Your task to perform on an android device: uninstall "Truecaller" Image 0: 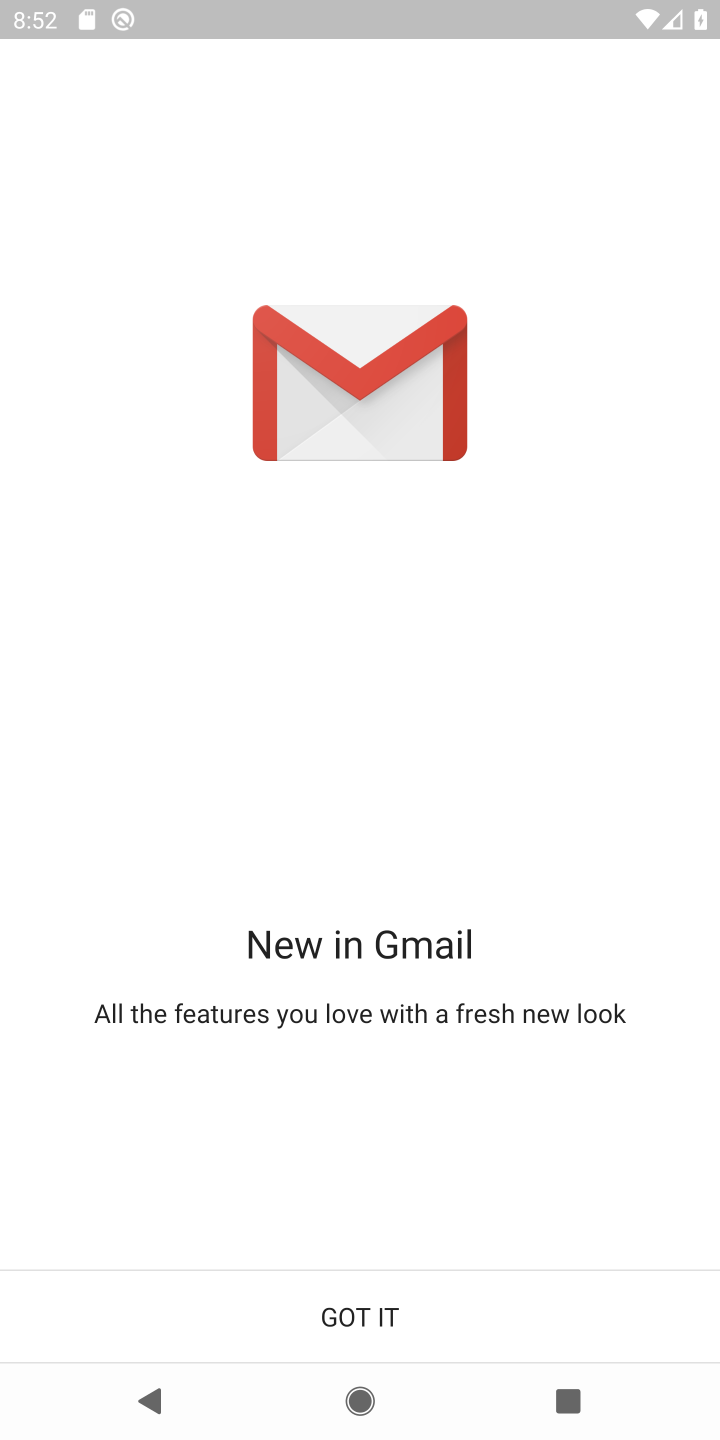
Step 0: press home button
Your task to perform on an android device: uninstall "Truecaller" Image 1: 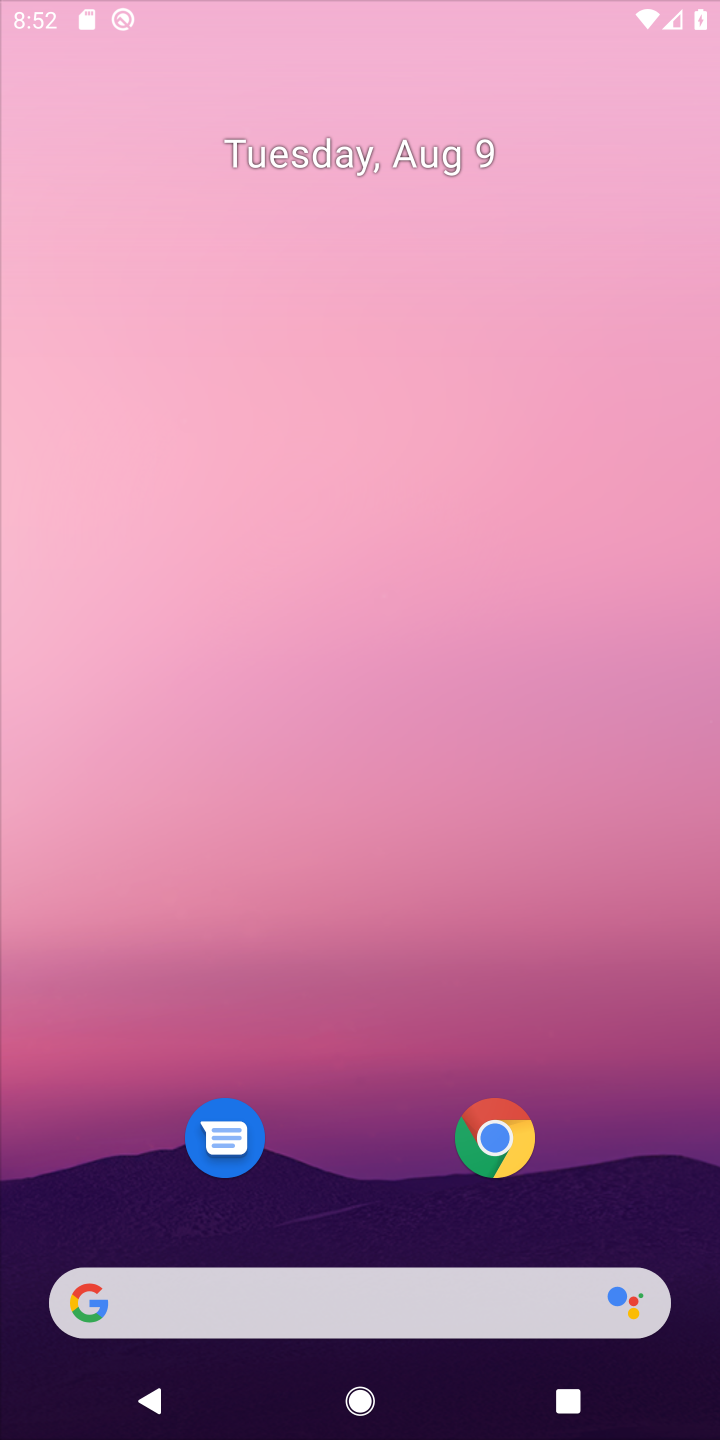
Step 1: drag from (384, 1065) to (315, 321)
Your task to perform on an android device: uninstall "Truecaller" Image 2: 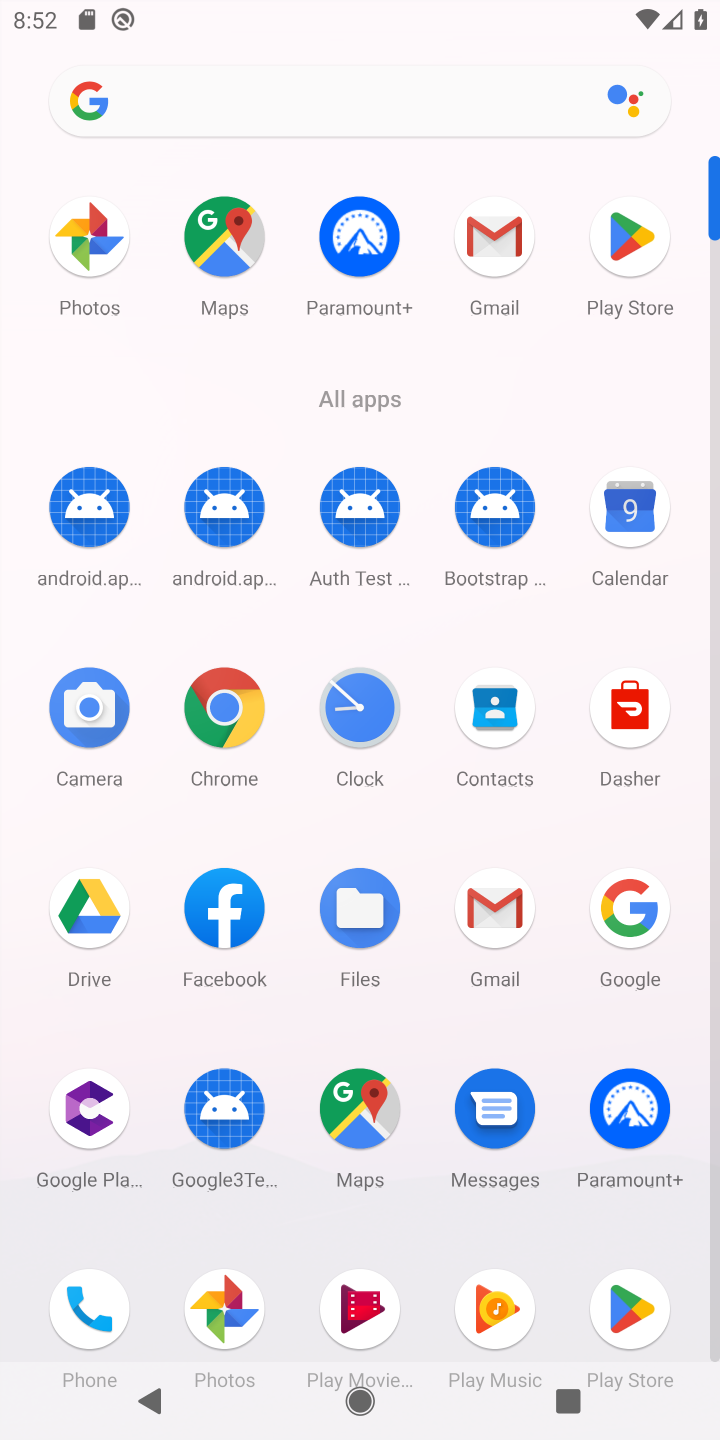
Step 2: click (598, 237)
Your task to perform on an android device: uninstall "Truecaller" Image 3: 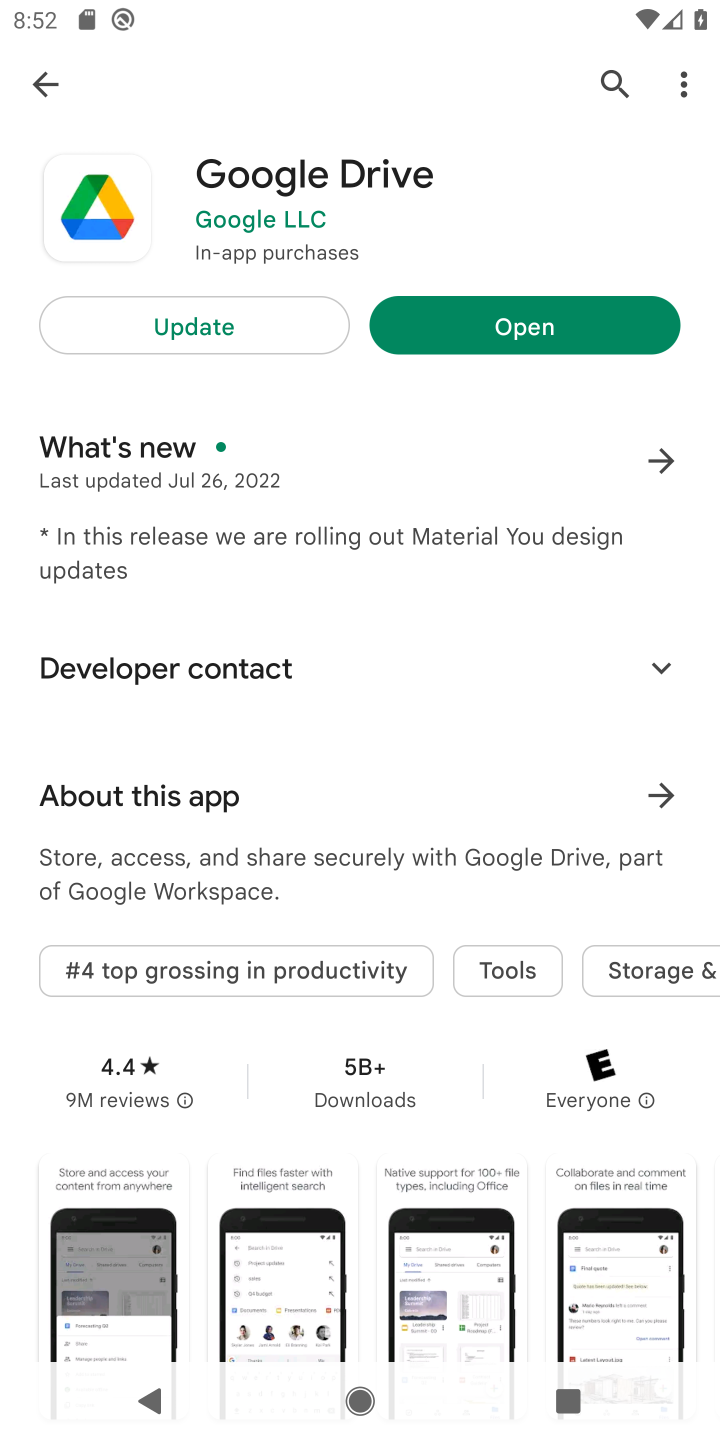
Step 3: click (602, 68)
Your task to perform on an android device: uninstall "Truecaller" Image 4: 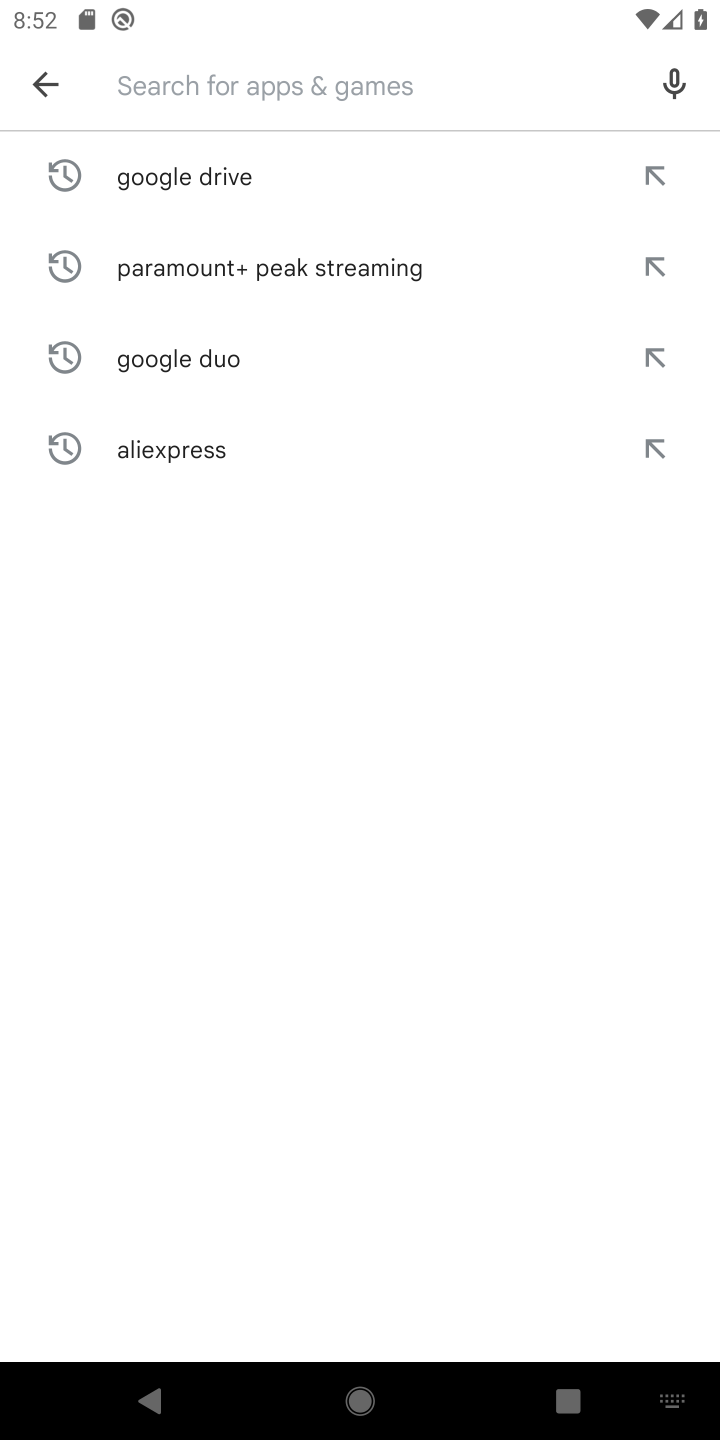
Step 4: type "Truecaller"
Your task to perform on an android device: uninstall "Truecaller" Image 5: 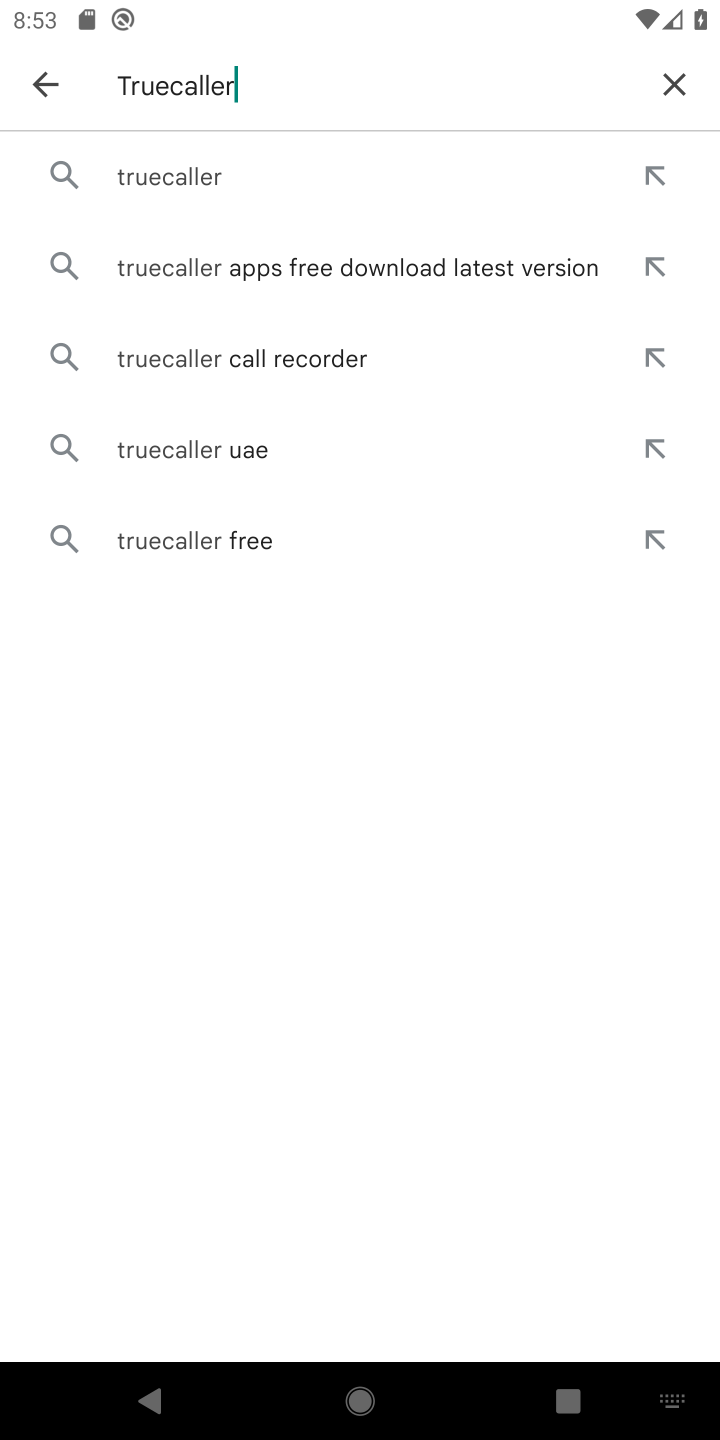
Step 5: click (180, 179)
Your task to perform on an android device: uninstall "Truecaller" Image 6: 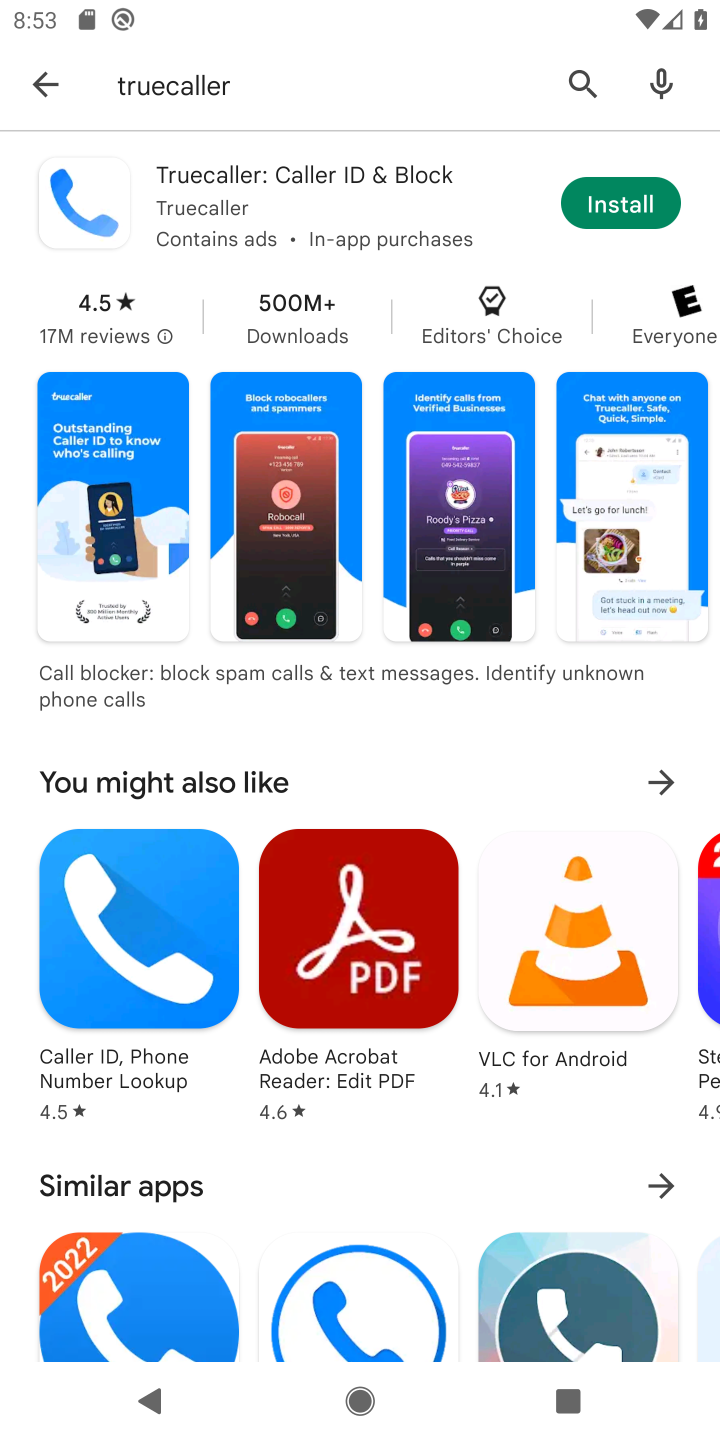
Step 6: task complete